Your task to perform on an android device: Open battery settings Image 0: 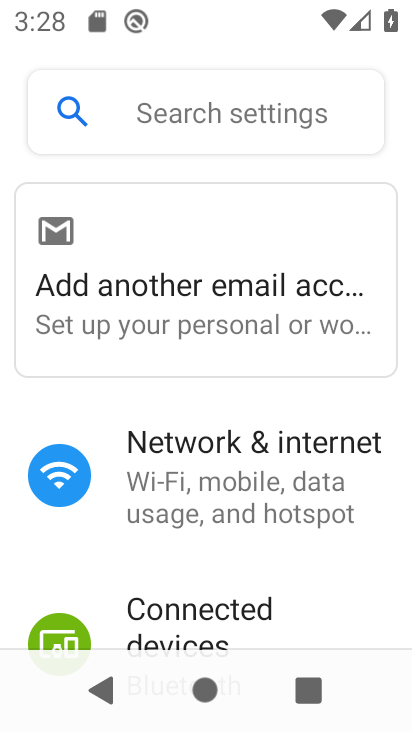
Step 0: press home button
Your task to perform on an android device: Open battery settings Image 1: 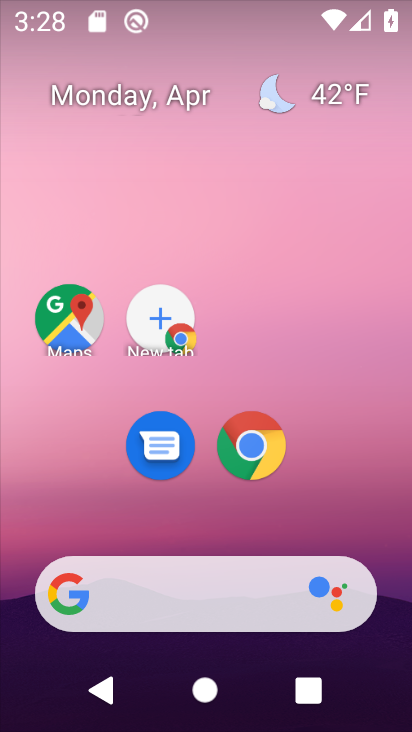
Step 1: drag from (213, 520) to (203, 40)
Your task to perform on an android device: Open battery settings Image 2: 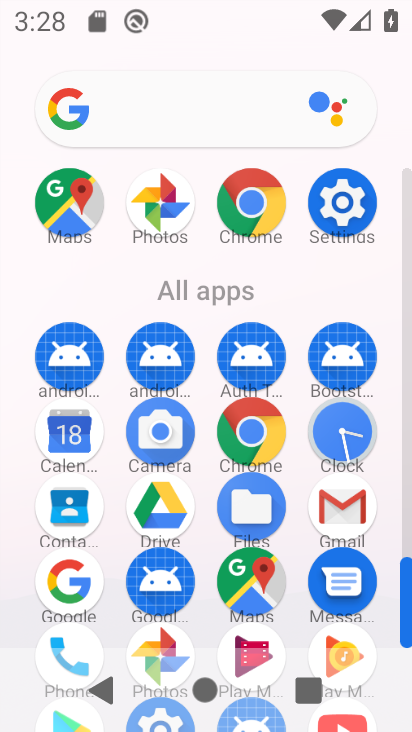
Step 2: click (338, 197)
Your task to perform on an android device: Open battery settings Image 3: 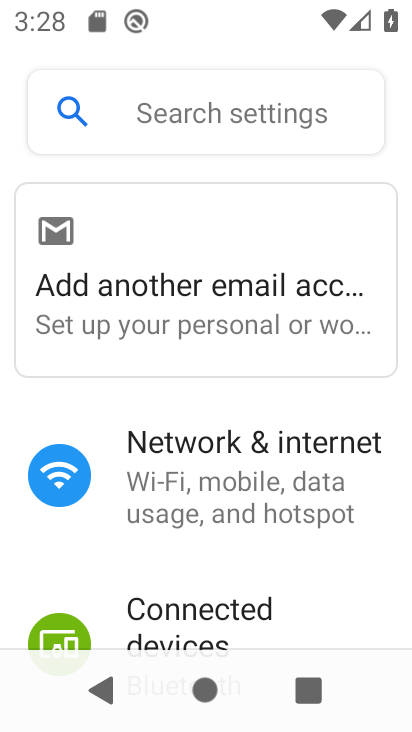
Step 3: drag from (210, 608) to (187, 85)
Your task to perform on an android device: Open battery settings Image 4: 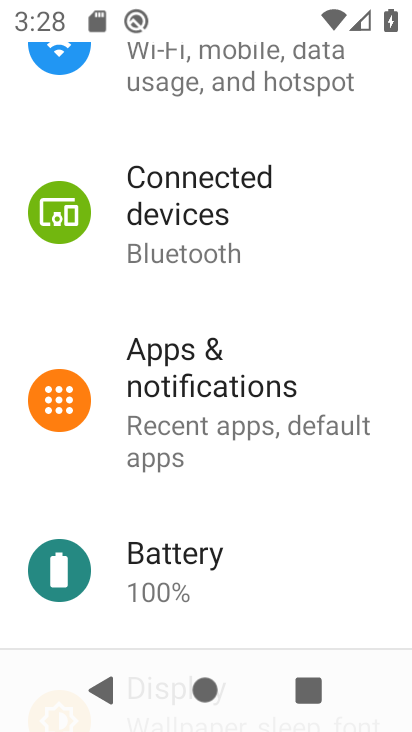
Step 4: click (203, 573)
Your task to perform on an android device: Open battery settings Image 5: 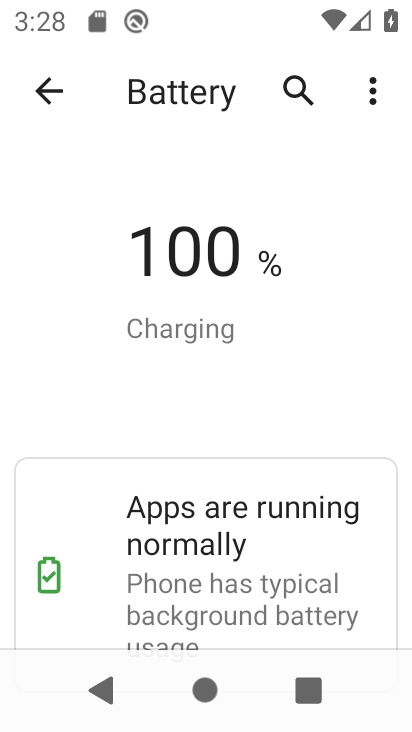
Step 5: task complete